Your task to perform on an android device: What's the weather going to be tomorrow? Image 0: 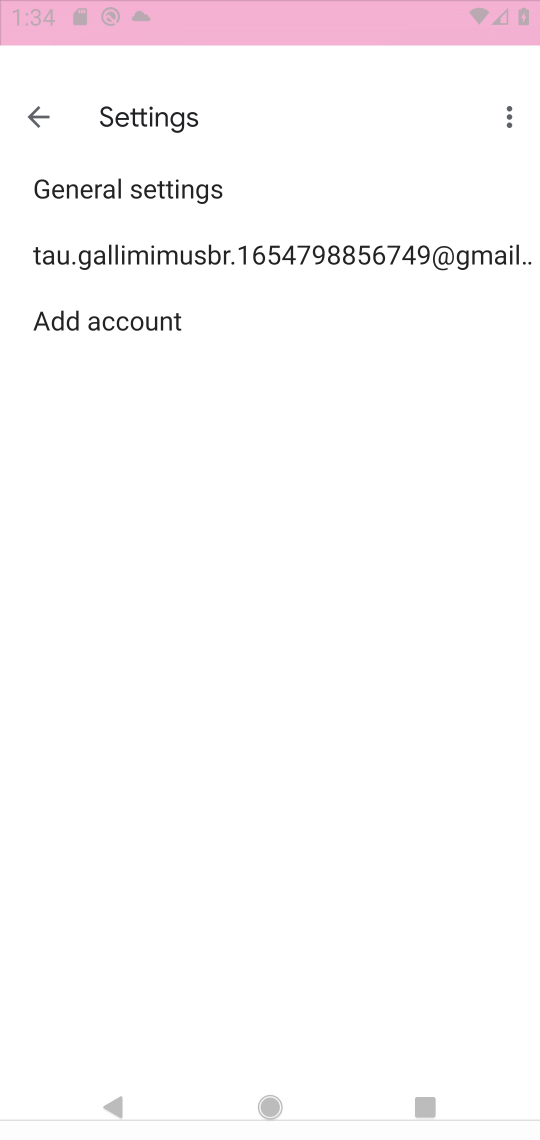
Step 0: press home button
Your task to perform on an android device: What's the weather going to be tomorrow? Image 1: 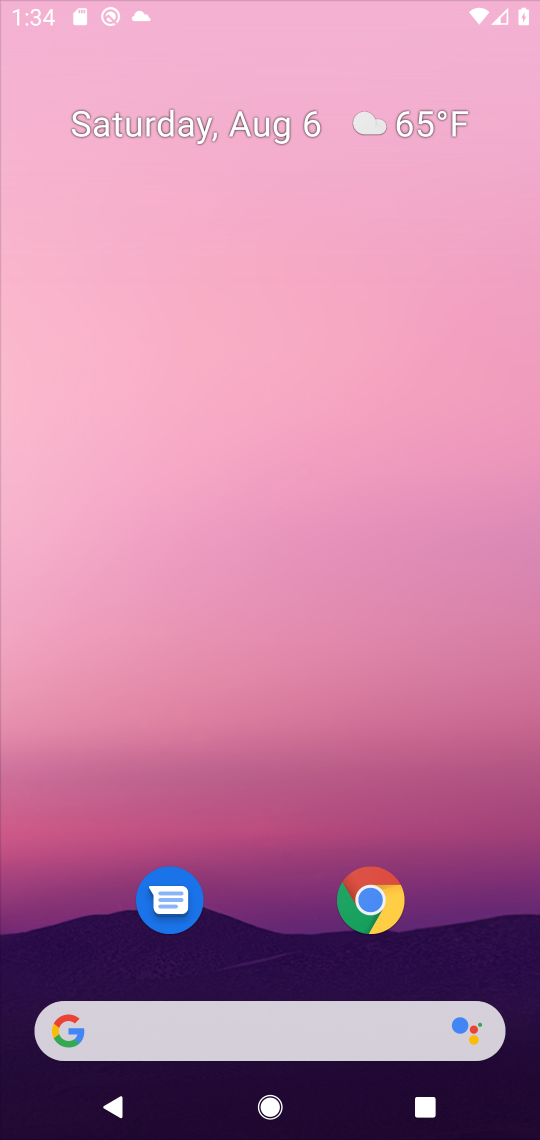
Step 1: press home button
Your task to perform on an android device: What's the weather going to be tomorrow? Image 2: 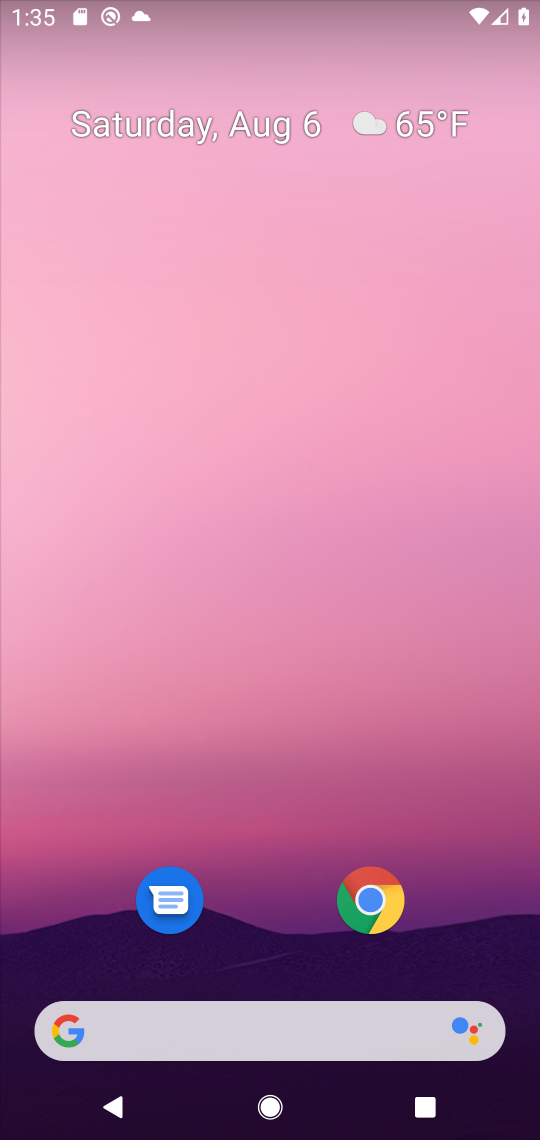
Step 2: click (61, 1017)
Your task to perform on an android device: What's the weather going to be tomorrow? Image 3: 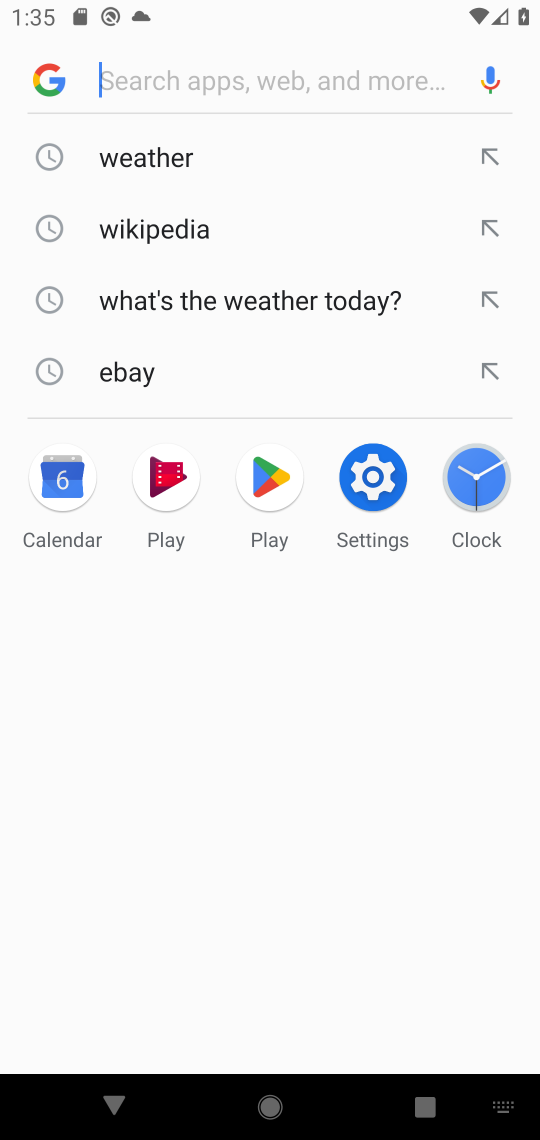
Step 3: type "What's the weather going to be tomorrow?"
Your task to perform on an android device: What's the weather going to be tomorrow? Image 4: 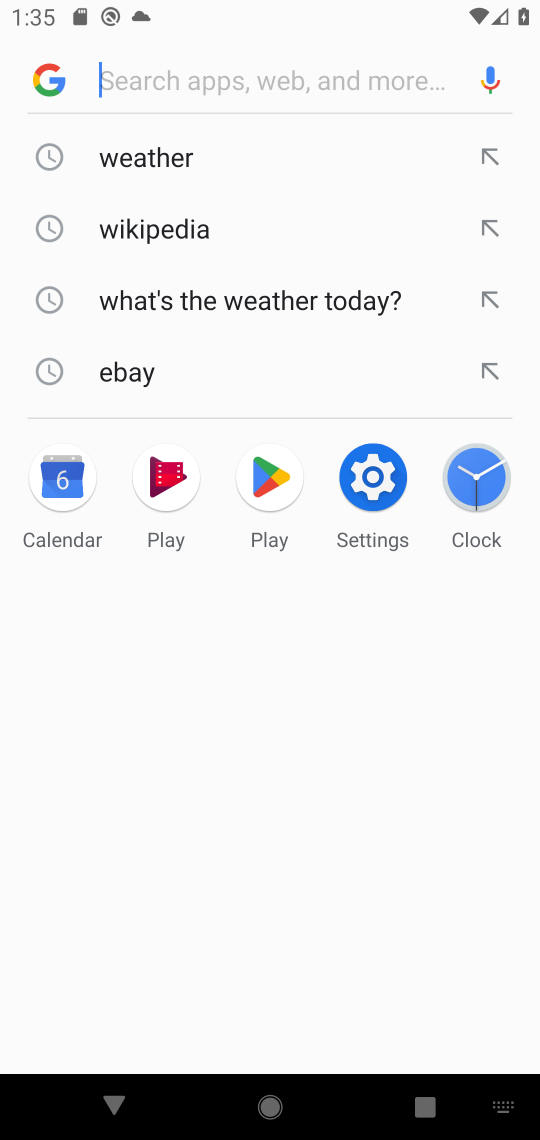
Step 4: click (154, 80)
Your task to perform on an android device: What's the weather going to be tomorrow? Image 5: 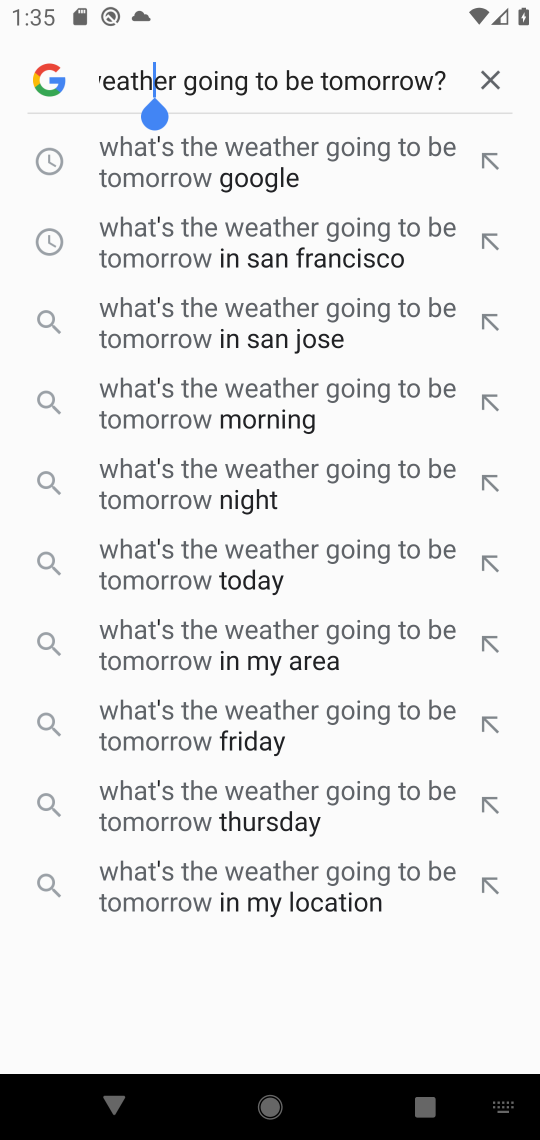
Step 5: type "What's the weather going to be tomorrow?"
Your task to perform on an android device: What's the weather going to be tomorrow? Image 6: 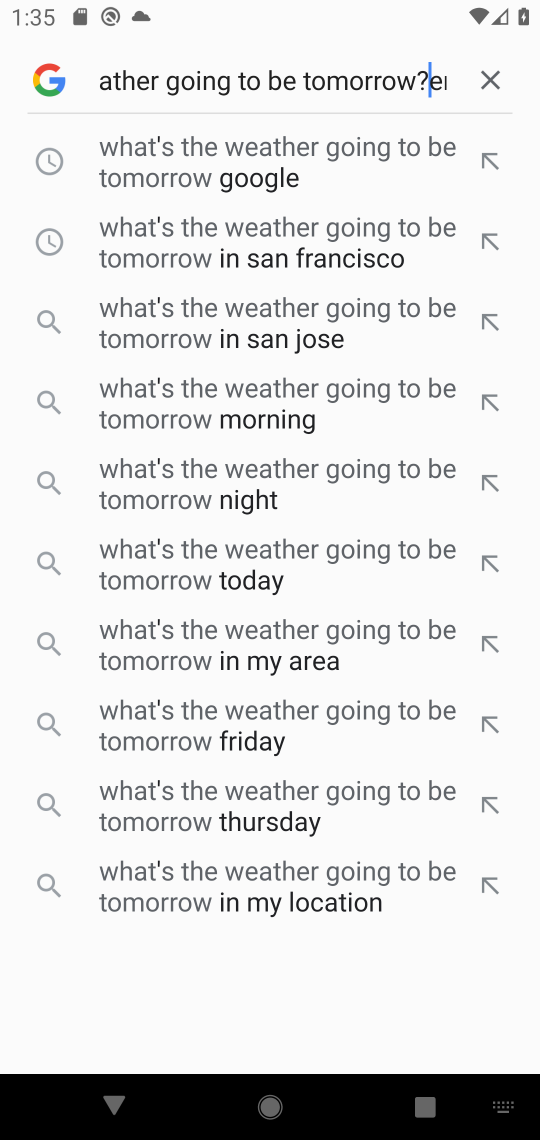
Step 6: press enter
Your task to perform on an android device: What's the weather going to be tomorrow? Image 7: 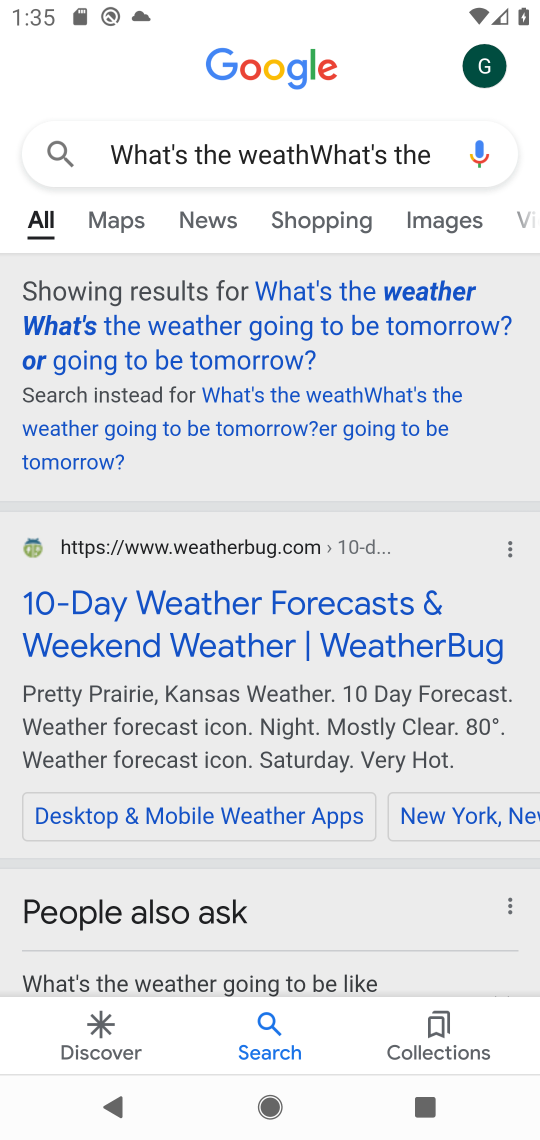
Step 7: task complete